Your task to perform on an android device: turn off location Image 0: 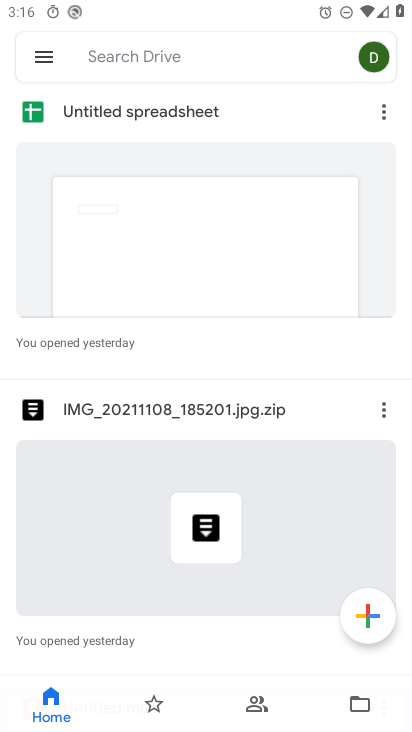
Step 0: press home button
Your task to perform on an android device: turn off location Image 1: 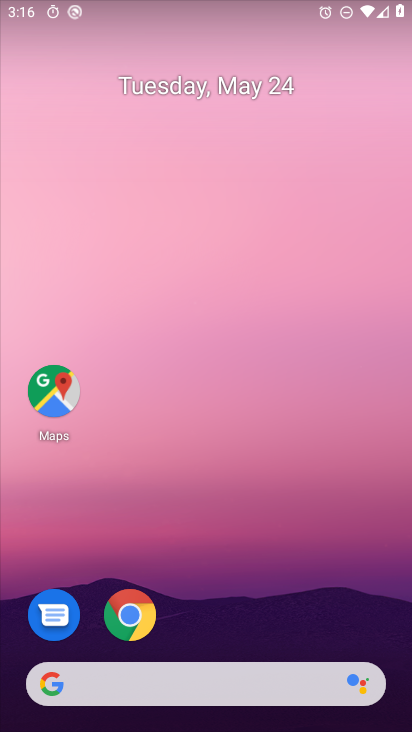
Step 1: drag from (169, 662) to (192, 237)
Your task to perform on an android device: turn off location Image 2: 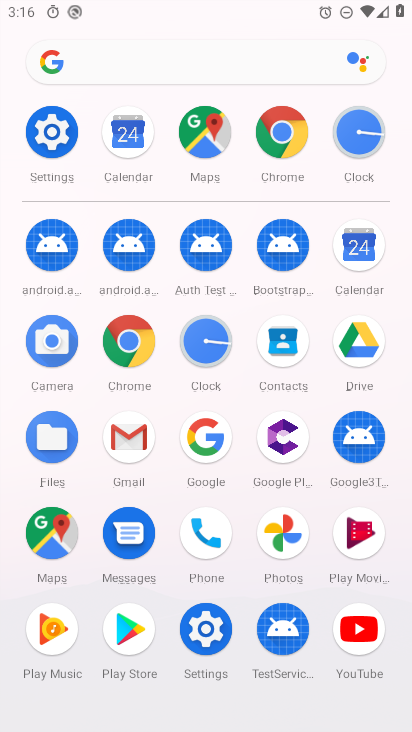
Step 2: click (58, 137)
Your task to perform on an android device: turn off location Image 3: 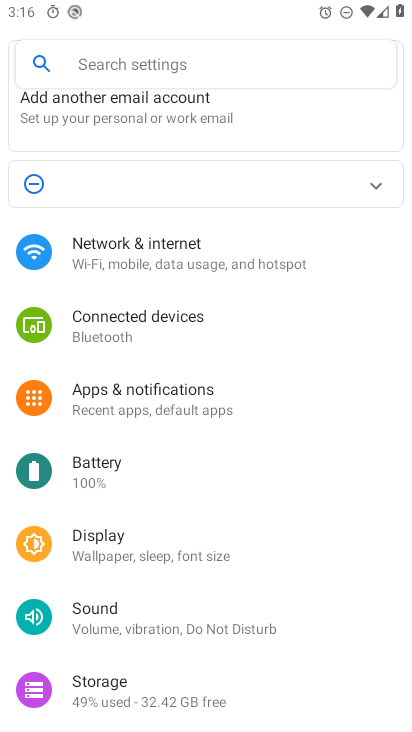
Step 3: drag from (147, 688) to (135, 338)
Your task to perform on an android device: turn off location Image 4: 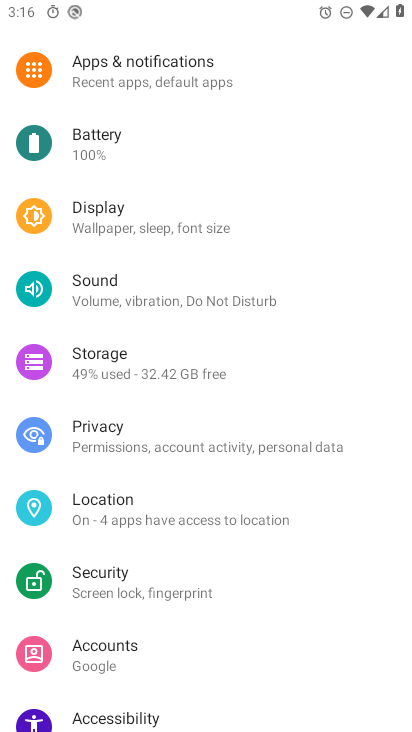
Step 4: click (125, 514)
Your task to perform on an android device: turn off location Image 5: 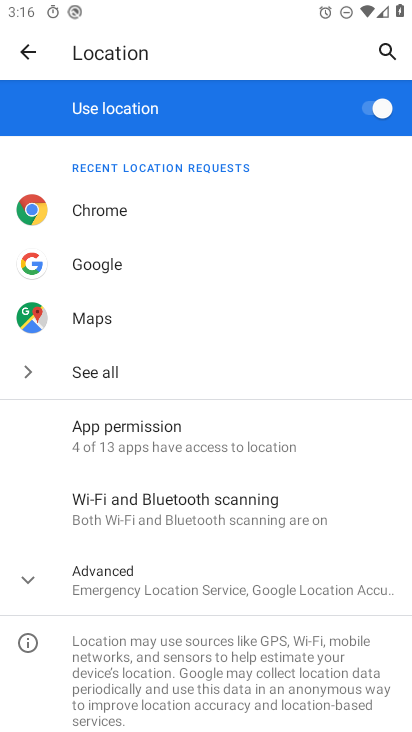
Step 5: click (361, 105)
Your task to perform on an android device: turn off location Image 6: 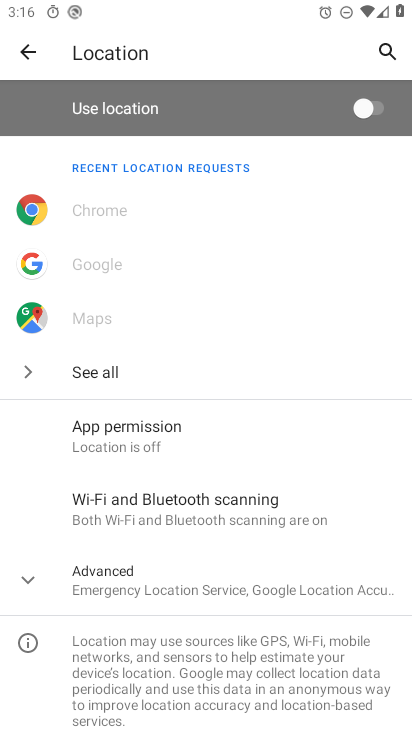
Step 6: task complete